Your task to perform on an android device: allow notifications from all sites in the chrome app Image 0: 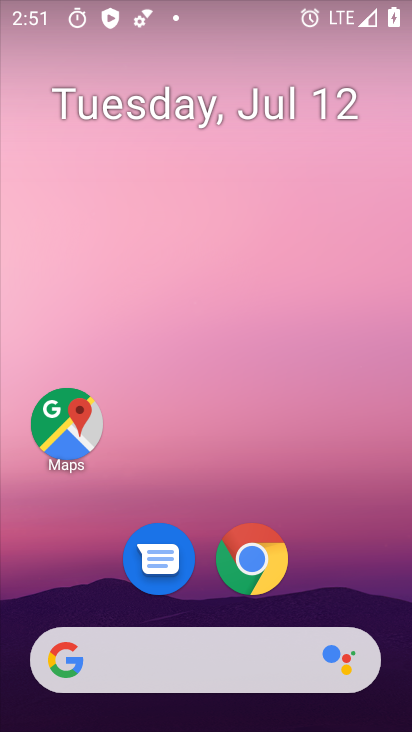
Step 0: drag from (344, 584) to (357, 105)
Your task to perform on an android device: allow notifications from all sites in the chrome app Image 1: 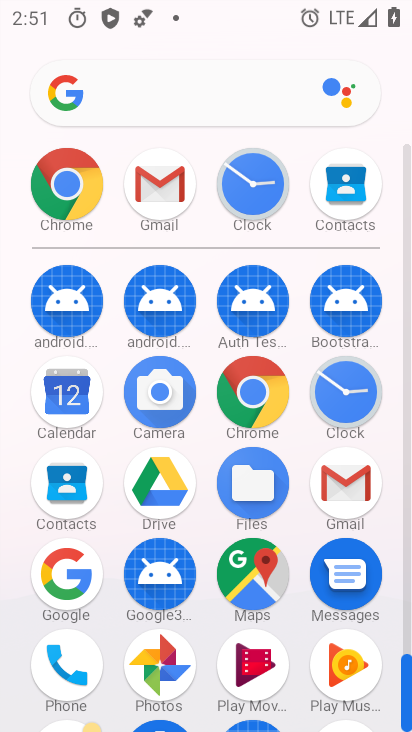
Step 1: click (261, 402)
Your task to perform on an android device: allow notifications from all sites in the chrome app Image 2: 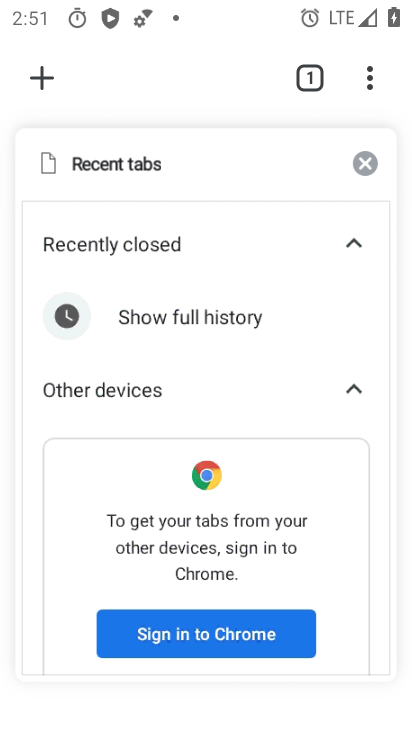
Step 2: click (367, 80)
Your task to perform on an android device: allow notifications from all sites in the chrome app Image 3: 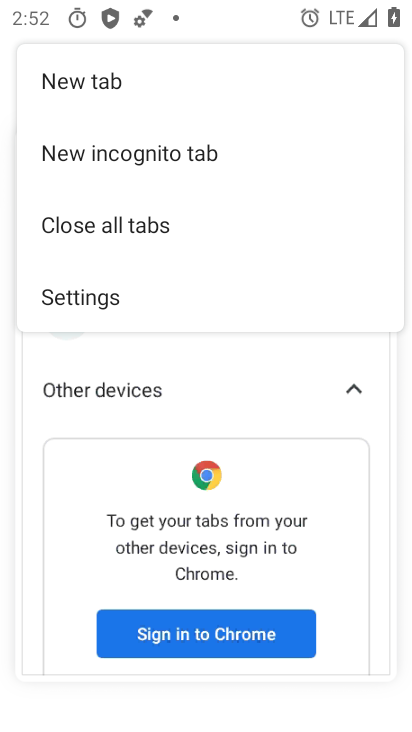
Step 3: click (228, 300)
Your task to perform on an android device: allow notifications from all sites in the chrome app Image 4: 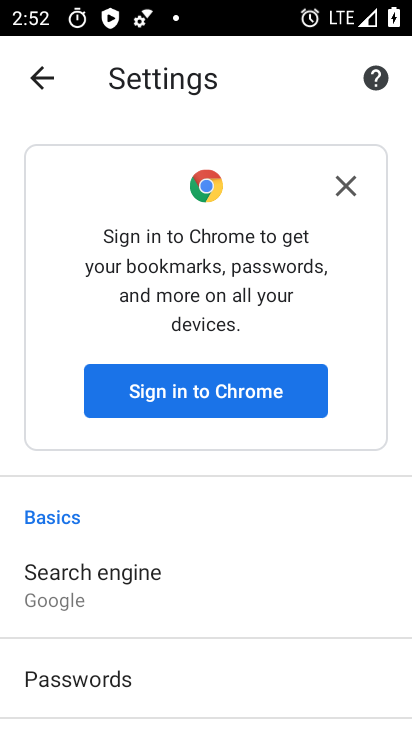
Step 4: drag from (308, 487) to (319, 318)
Your task to perform on an android device: allow notifications from all sites in the chrome app Image 5: 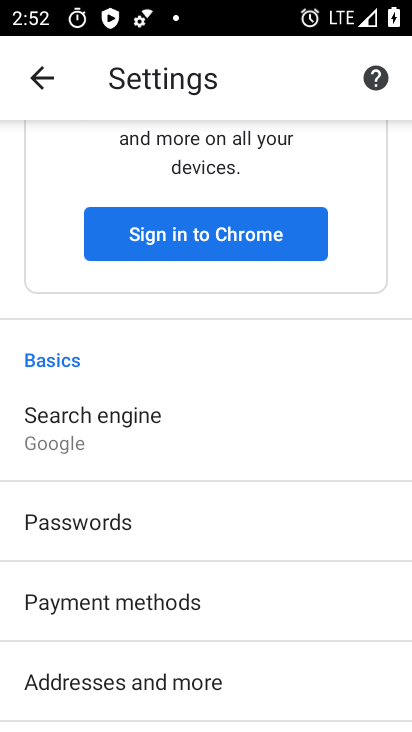
Step 5: drag from (330, 488) to (338, 352)
Your task to perform on an android device: allow notifications from all sites in the chrome app Image 6: 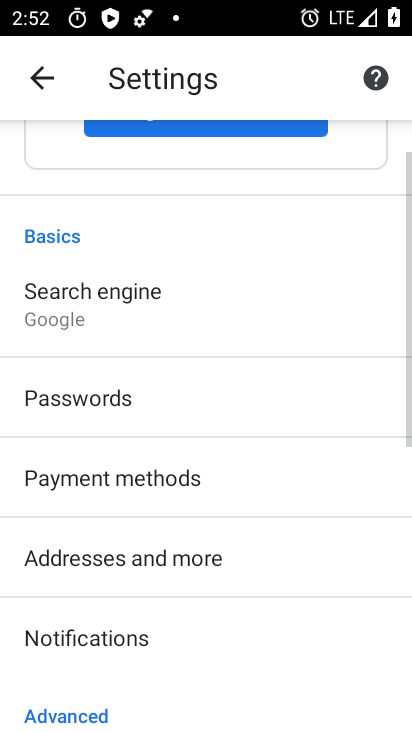
Step 6: drag from (345, 469) to (347, 281)
Your task to perform on an android device: allow notifications from all sites in the chrome app Image 7: 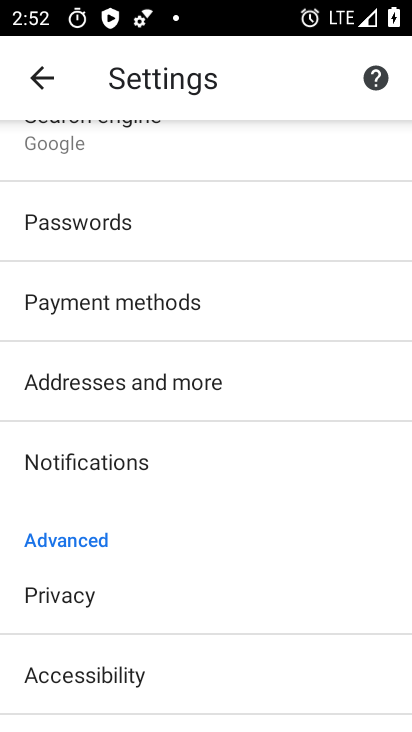
Step 7: drag from (321, 491) to (325, 362)
Your task to perform on an android device: allow notifications from all sites in the chrome app Image 8: 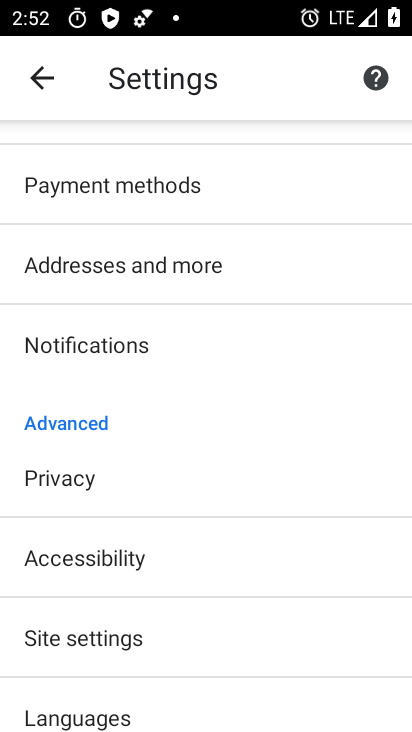
Step 8: drag from (338, 508) to (337, 366)
Your task to perform on an android device: allow notifications from all sites in the chrome app Image 9: 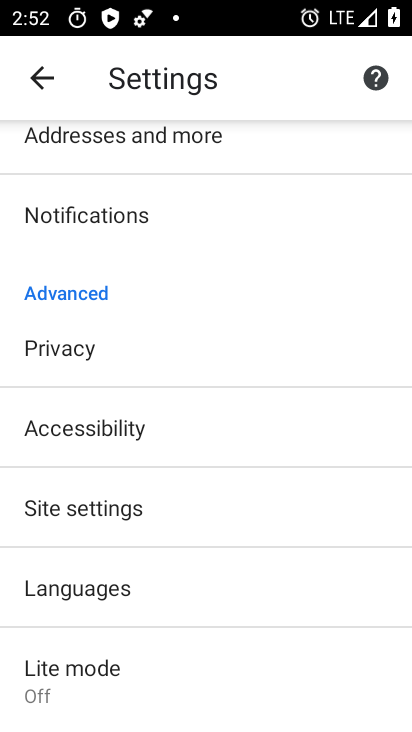
Step 9: click (334, 500)
Your task to perform on an android device: allow notifications from all sites in the chrome app Image 10: 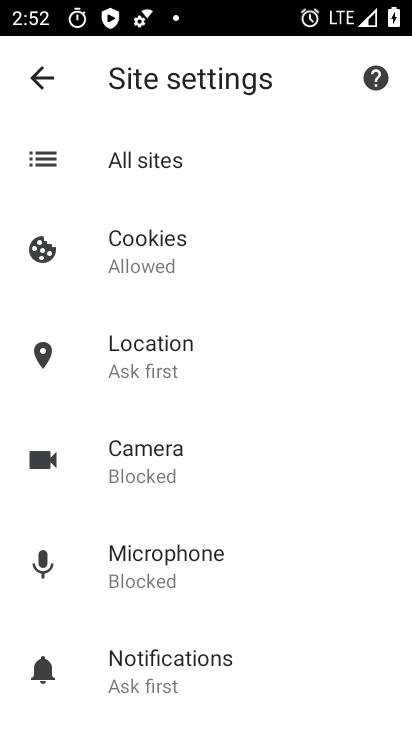
Step 10: drag from (338, 530) to (336, 439)
Your task to perform on an android device: allow notifications from all sites in the chrome app Image 11: 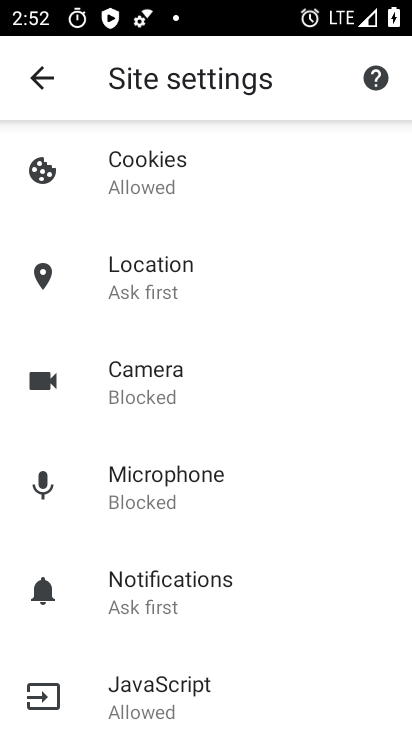
Step 11: drag from (334, 529) to (332, 420)
Your task to perform on an android device: allow notifications from all sites in the chrome app Image 12: 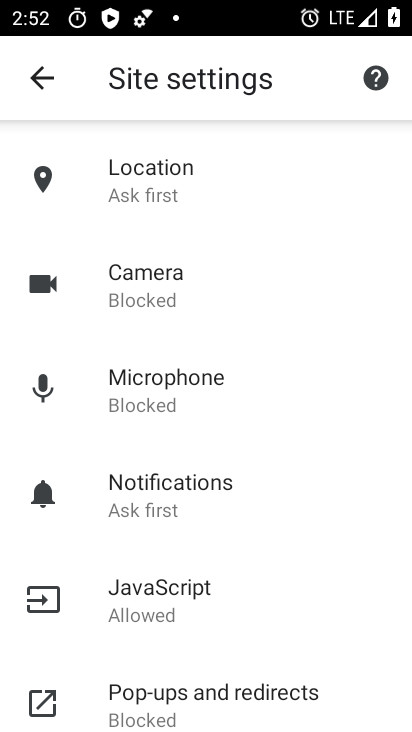
Step 12: click (238, 503)
Your task to perform on an android device: allow notifications from all sites in the chrome app Image 13: 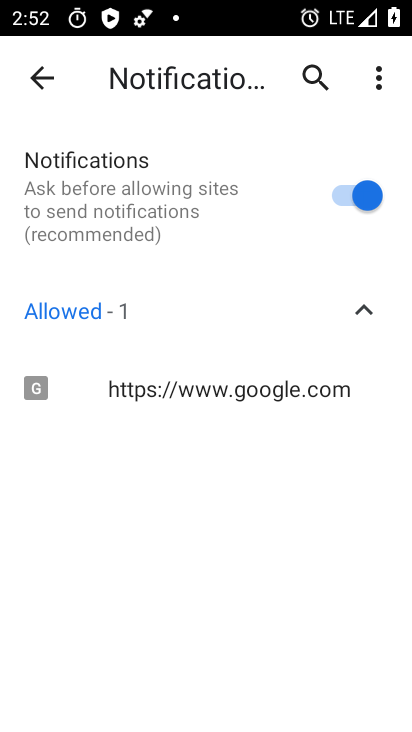
Step 13: task complete